Your task to perform on an android device: read, delete, or share a saved page in the chrome app Image 0: 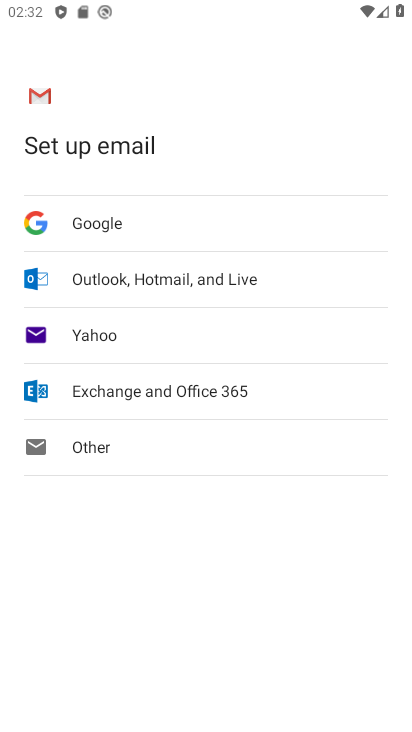
Step 0: press home button
Your task to perform on an android device: read, delete, or share a saved page in the chrome app Image 1: 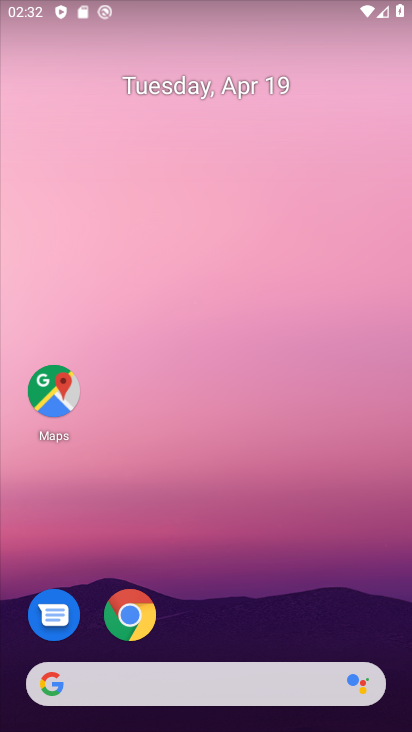
Step 1: drag from (262, 603) to (310, 274)
Your task to perform on an android device: read, delete, or share a saved page in the chrome app Image 2: 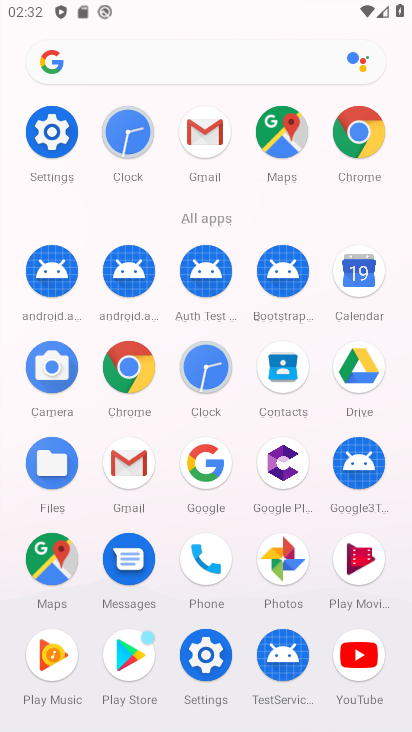
Step 2: click (132, 365)
Your task to perform on an android device: read, delete, or share a saved page in the chrome app Image 3: 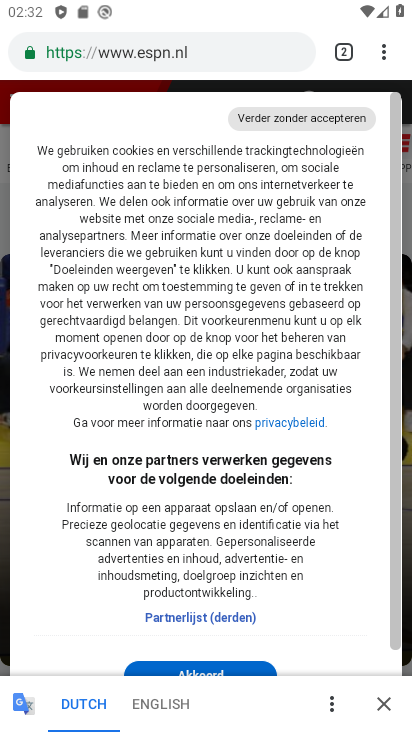
Step 3: click (384, 51)
Your task to perform on an android device: read, delete, or share a saved page in the chrome app Image 4: 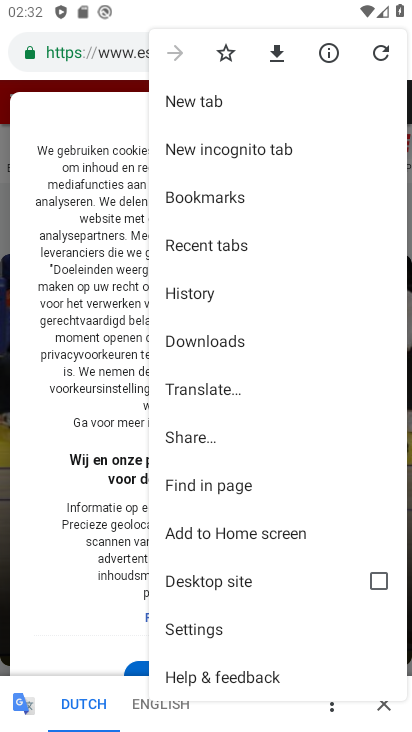
Step 4: click (223, 343)
Your task to perform on an android device: read, delete, or share a saved page in the chrome app Image 5: 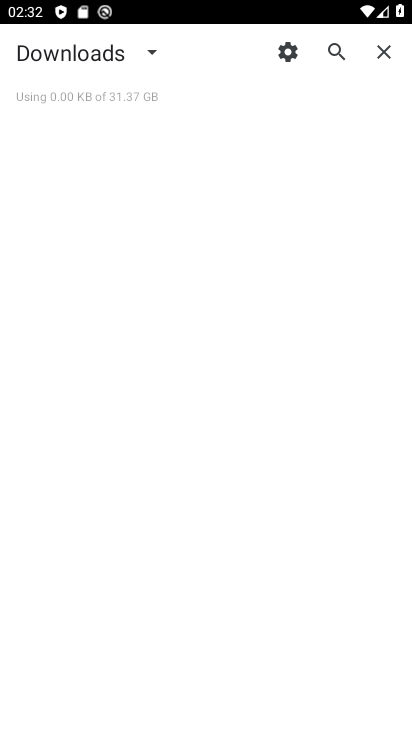
Step 5: click (145, 48)
Your task to perform on an android device: read, delete, or share a saved page in the chrome app Image 6: 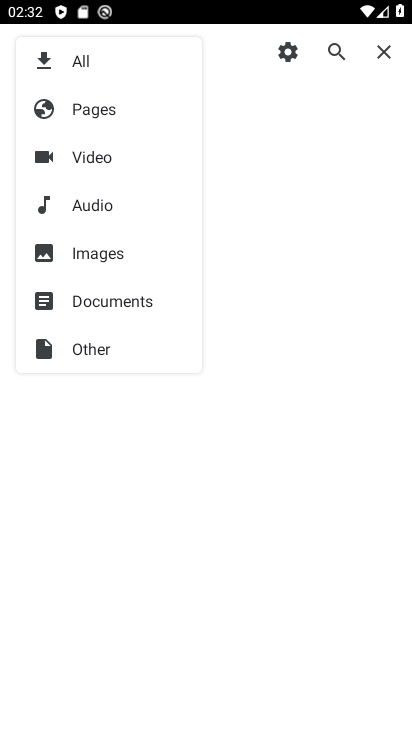
Step 6: click (101, 113)
Your task to perform on an android device: read, delete, or share a saved page in the chrome app Image 7: 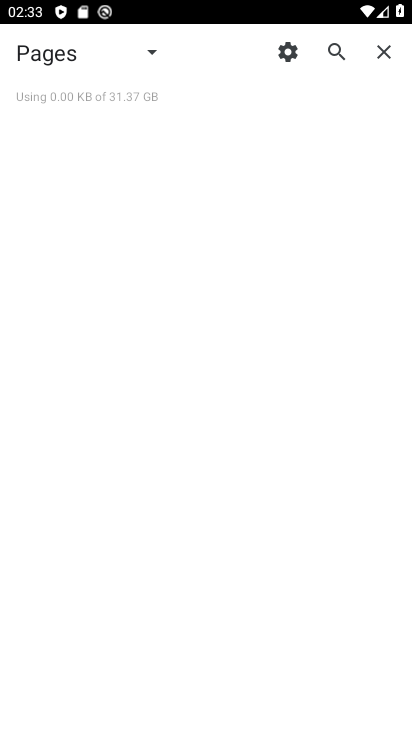
Step 7: task complete